Your task to perform on an android device: Clear the cart on walmart.com. Search for "acer predator" on walmart.com, select the first entry, add it to the cart, then select checkout. Image 0: 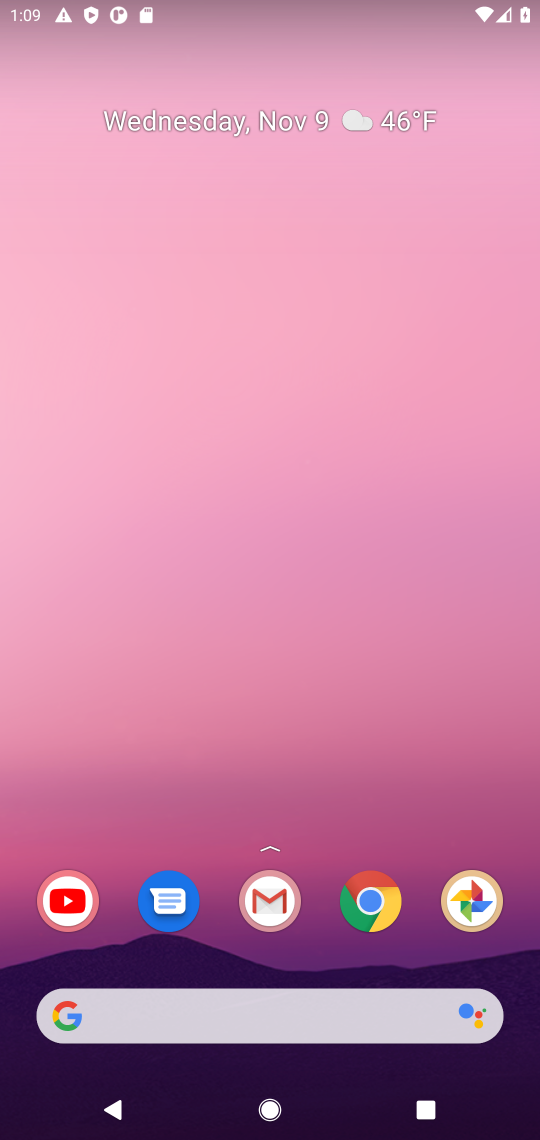
Step 0: click (353, 909)
Your task to perform on an android device: Clear the cart on walmart.com. Search for "acer predator" on walmart.com, select the first entry, add it to the cart, then select checkout. Image 1: 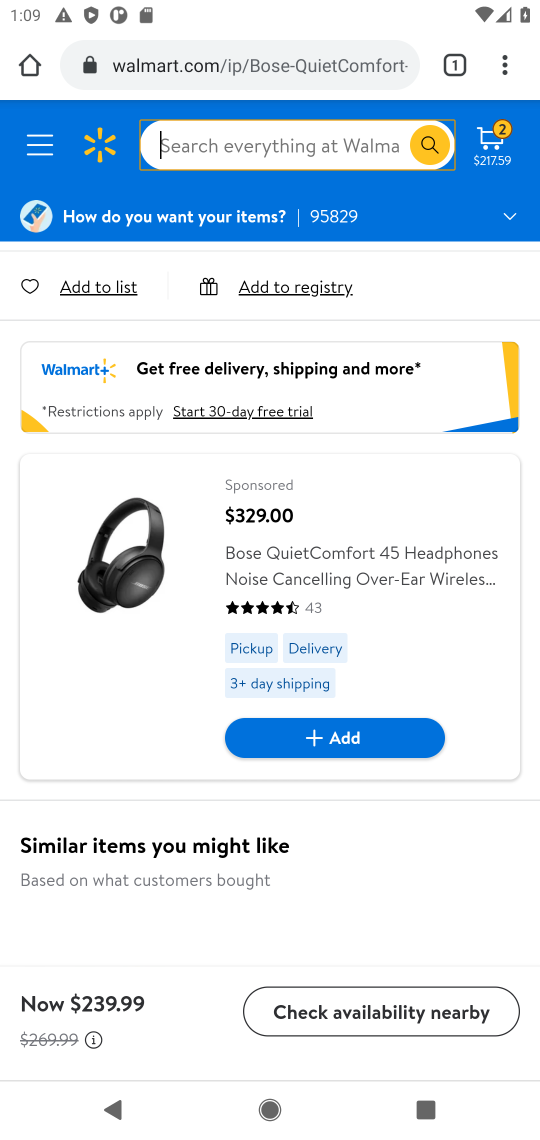
Step 1: click (483, 141)
Your task to perform on an android device: Clear the cart on walmart.com. Search for "acer predator" on walmart.com, select the first entry, add it to the cart, then select checkout. Image 2: 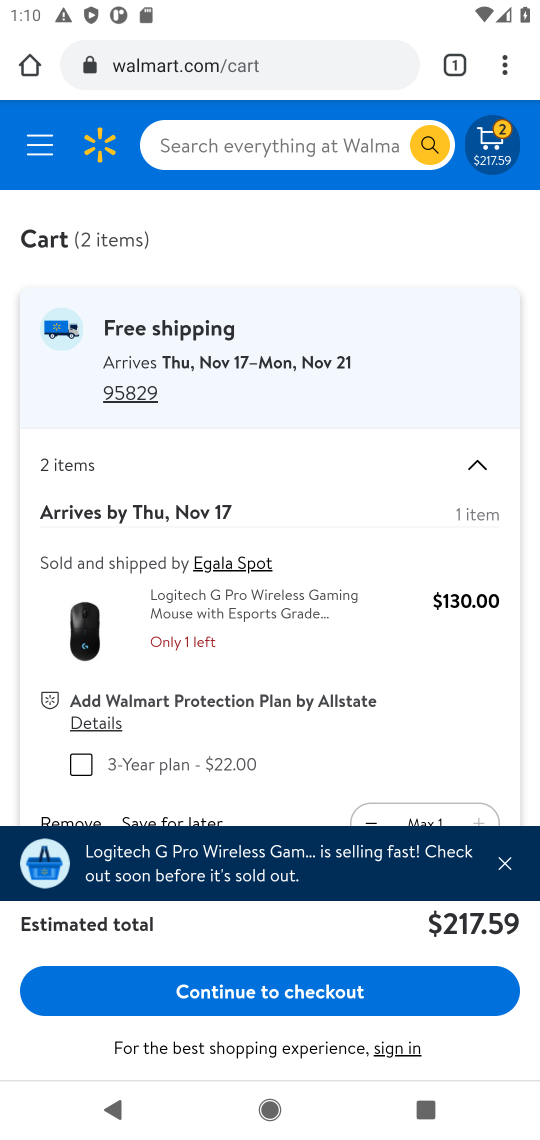
Step 2: drag from (408, 718) to (397, 344)
Your task to perform on an android device: Clear the cart on walmart.com. Search for "acer predator" on walmart.com, select the first entry, add it to the cart, then select checkout. Image 3: 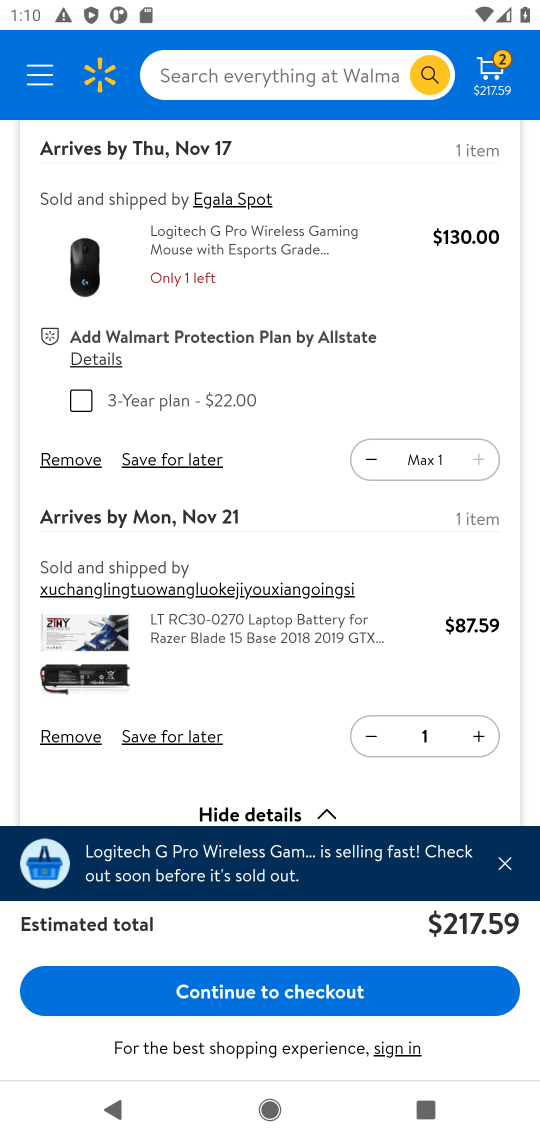
Step 3: click (64, 462)
Your task to perform on an android device: Clear the cart on walmart.com. Search for "acer predator" on walmart.com, select the first entry, add it to the cart, then select checkout. Image 4: 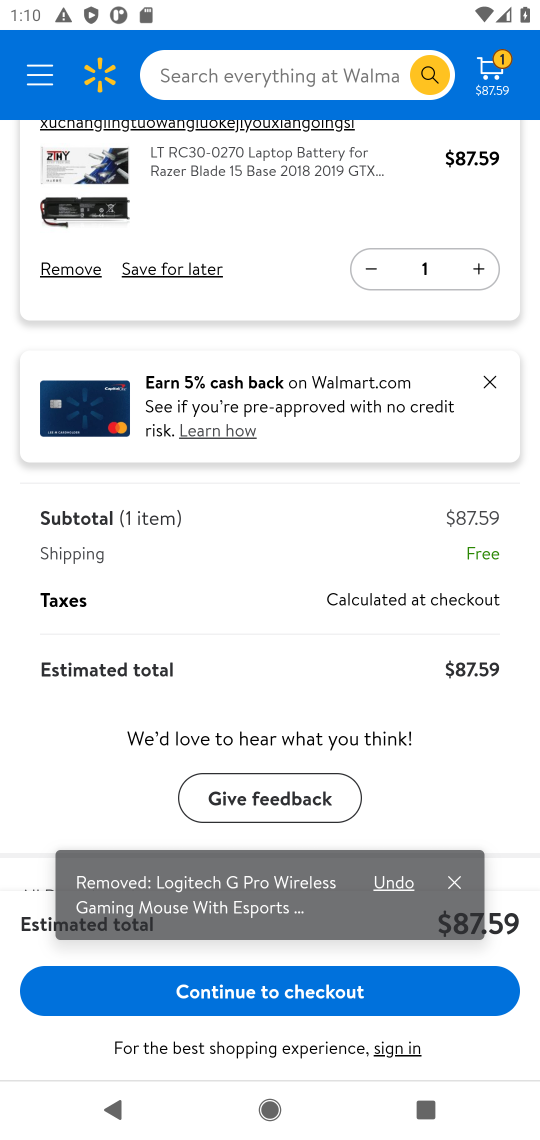
Step 4: click (52, 263)
Your task to perform on an android device: Clear the cart on walmart.com. Search for "acer predator" on walmart.com, select the first entry, add it to the cart, then select checkout. Image 5: 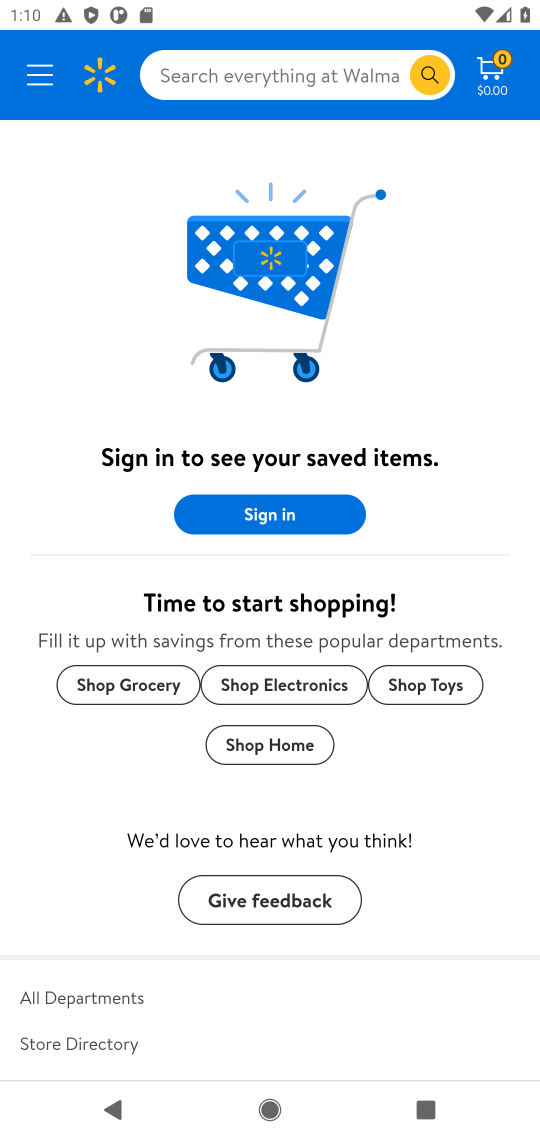
Step 5: click (339, 81)
Your task to perform on an android device: Clear the cart on walmart.com. Search for "acer predator" on walmart.com, select the first entry, add it to the cart, then select checkout. Image 6: 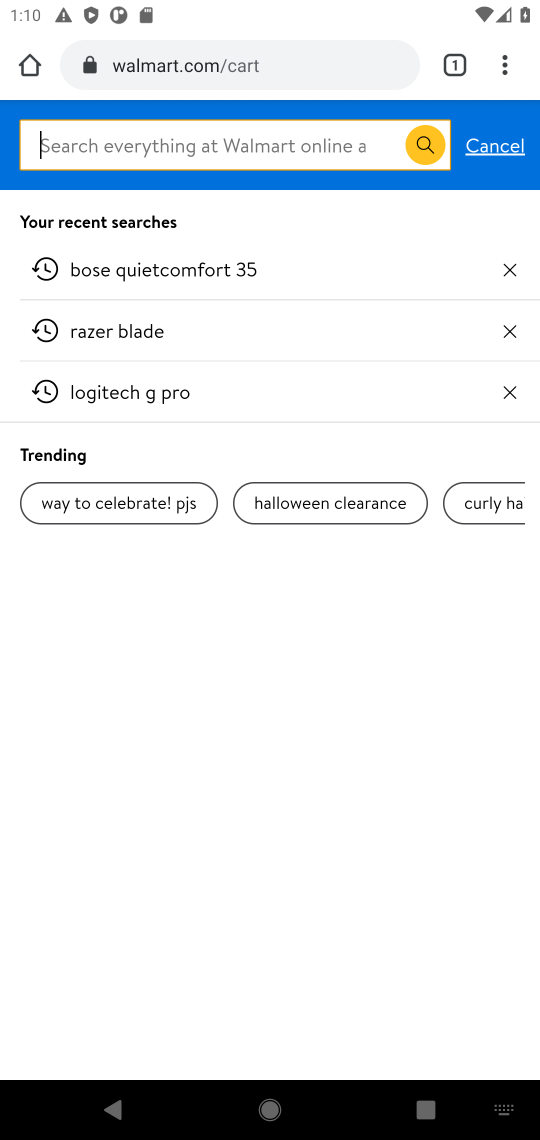
Step 6: click (320, 138)
Your task to perform on an android device: Clear the cart on walmart.com. Search for "acer predator" on walmart.com, select the first entry, add it to the cart, then select checkout. Image 7: 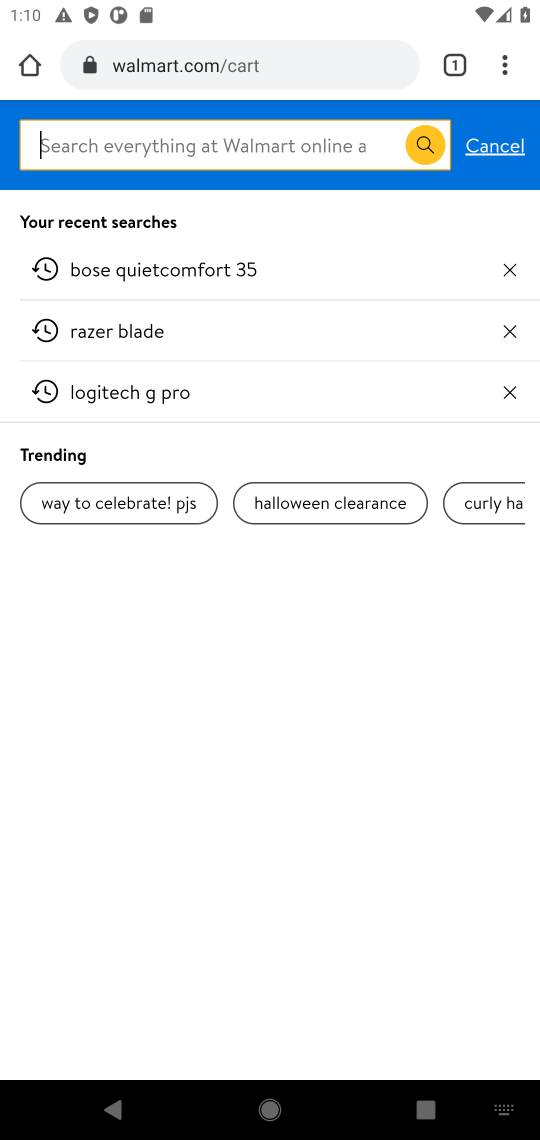
Step 7: type "acer predator"
Your task to perform on an android device: Clear the cart on walmart.com. Search for "acer predator" on walmart.com, select the first entry, add it to the cart, then select checkout. Image 8: 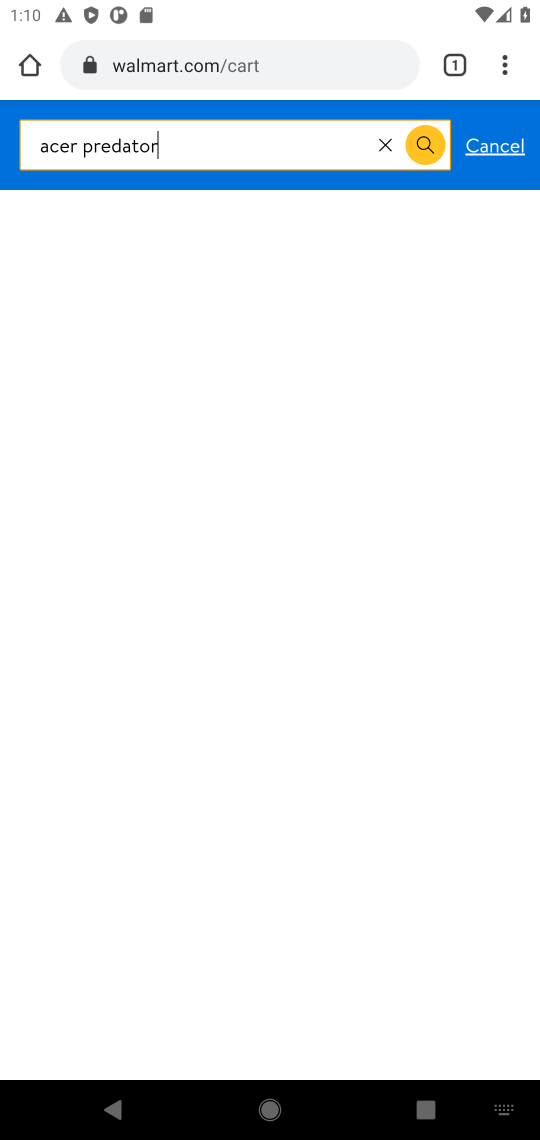
Step 8: press enter
Your task to perform on an android device: Clear the cart on walmart.com. Search for "acer predator" on walmart.com, select the first entry, add it to the cart, then select checkout. Image 9: 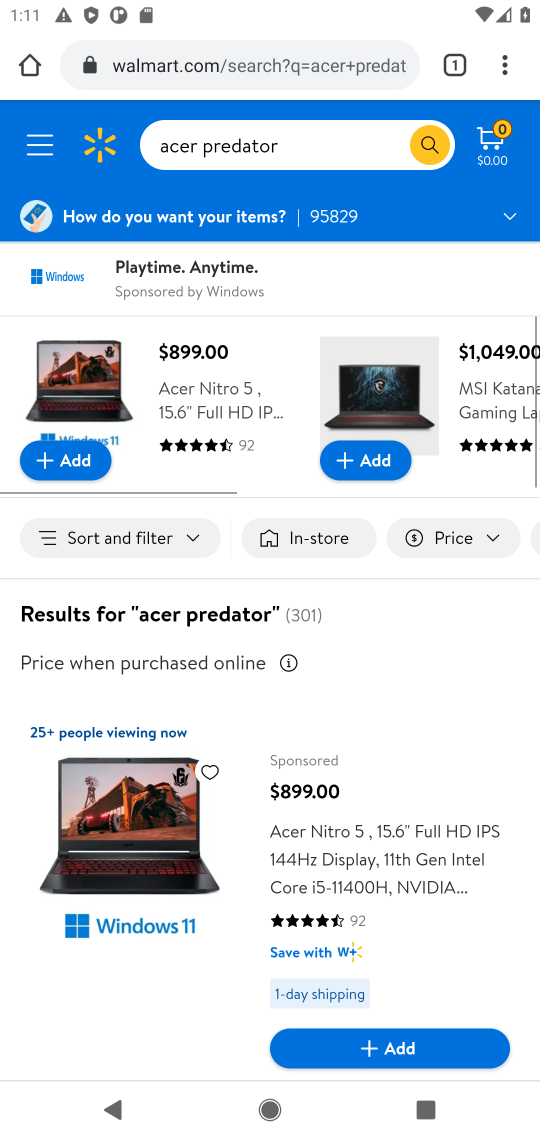
Step 9: drag from (430, 770) to (418, 270)
Your task to perform on an android device: Clear the cart on walmart.com. Search for "acer predator" on walmart.com, select the first entry, add it to the cart, then select checkout. Image 10: 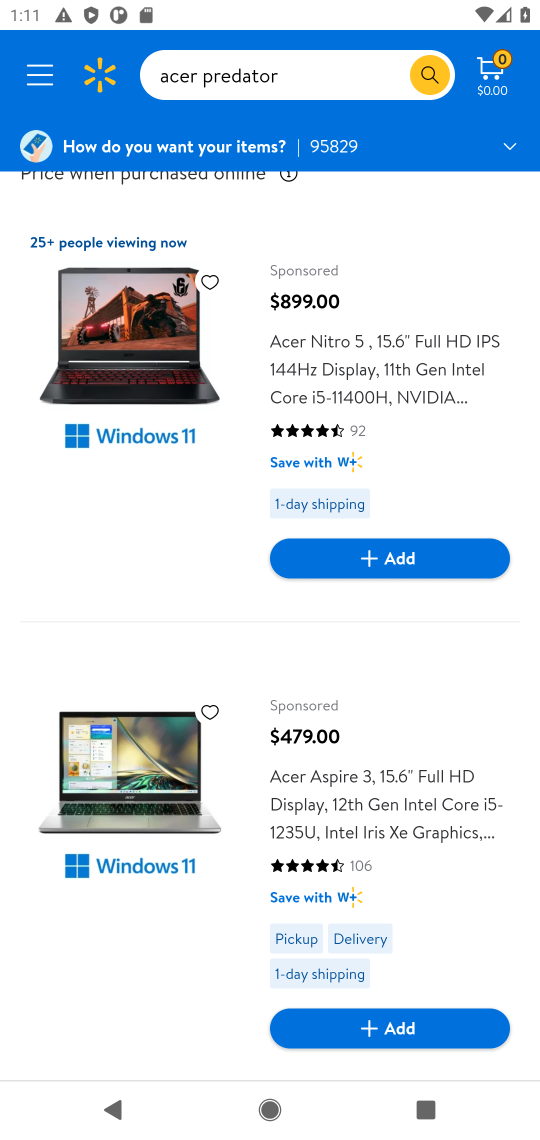
Step 10: drag from (456, 858) to (443, 358)
Your task to perform on an android device: Clear the cart on walmart.com. Search for "acer predator" on walmart.com, select the first entry, add it to the cart, then select checkout. Image 11: 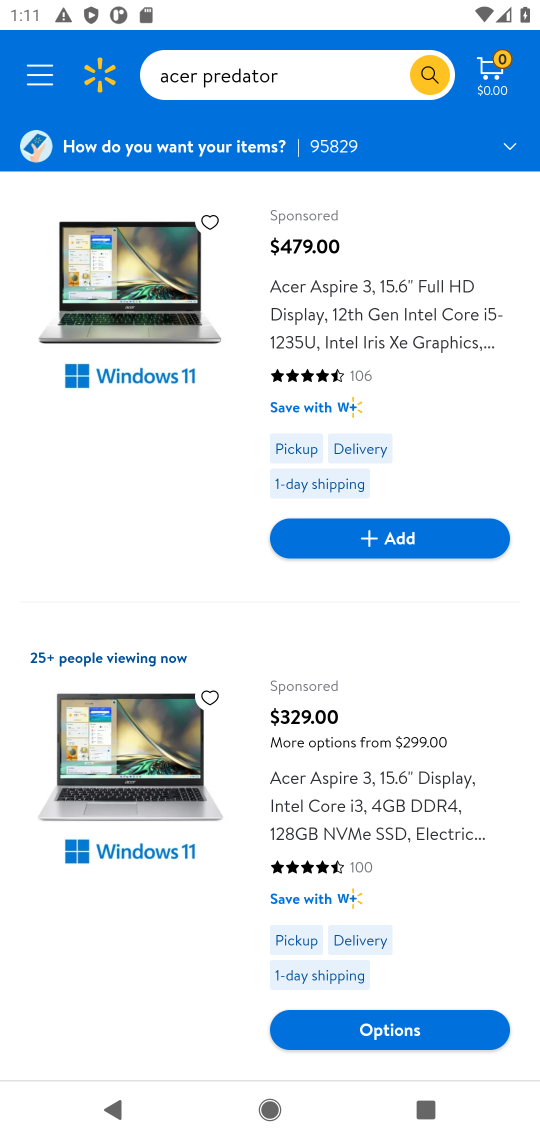
Step 11: drag from (452, 846) to (416, 515)
Your task to perform on an android device: Clear the cart on walmart.com. Search for "acer predator" on walmart.com, select the first entry, add it to the cart, then select checkout. Image 12: 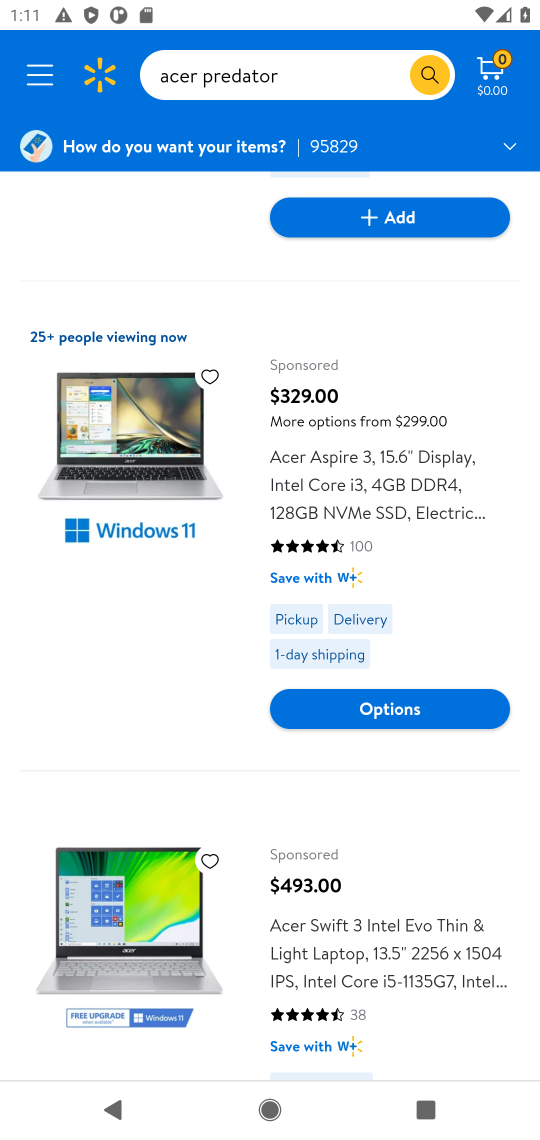
Step 12: drag from (453, 827) to (430, 434)
Your task to perform on an android device: Clear the cart on walmart.com. Search for "acer predator" on walmart.com, select the first entry, add it to the cart, then select checkout. Image 13: 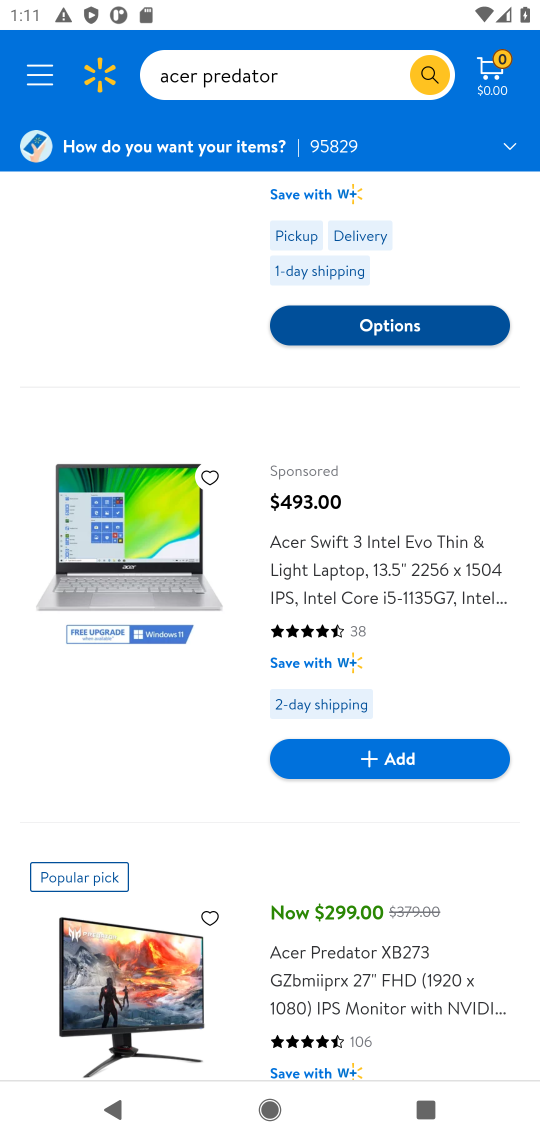
Step 13: click (141, 985)
Your task to perform on an android device: Clear the cart on walmart.com. Search for "acer predator" on walmart.com, select the first entry, add it to the cart, then select checkout. Image 14: 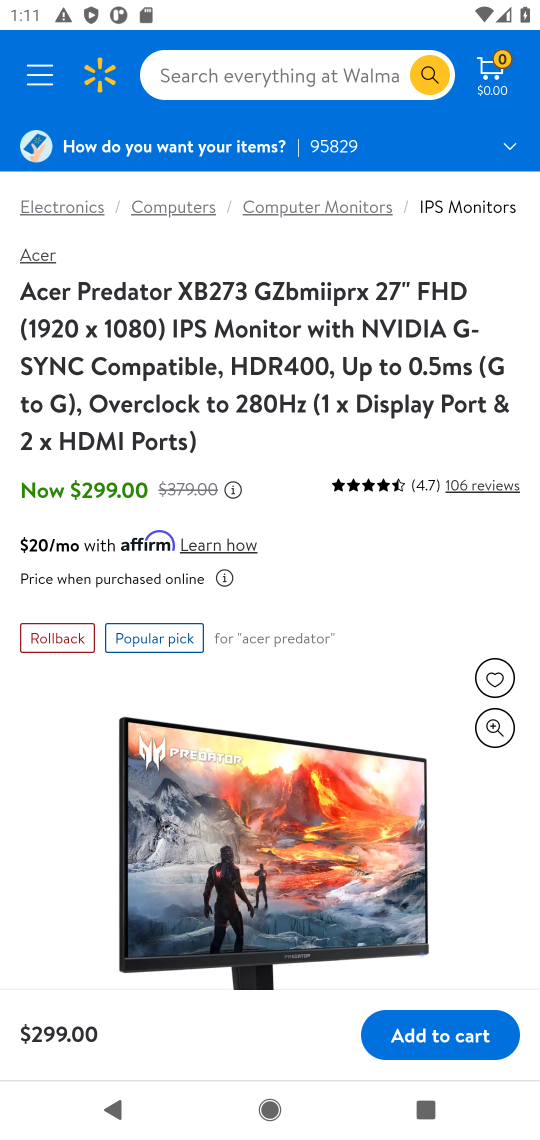
Step 14: click (462, 1048)
Your task to perform on an android device: Clear the cart on walmart.com. Search for "acer predator" on walmart.com, select the first entry, add it to the cart, then select checkout. Image 15: 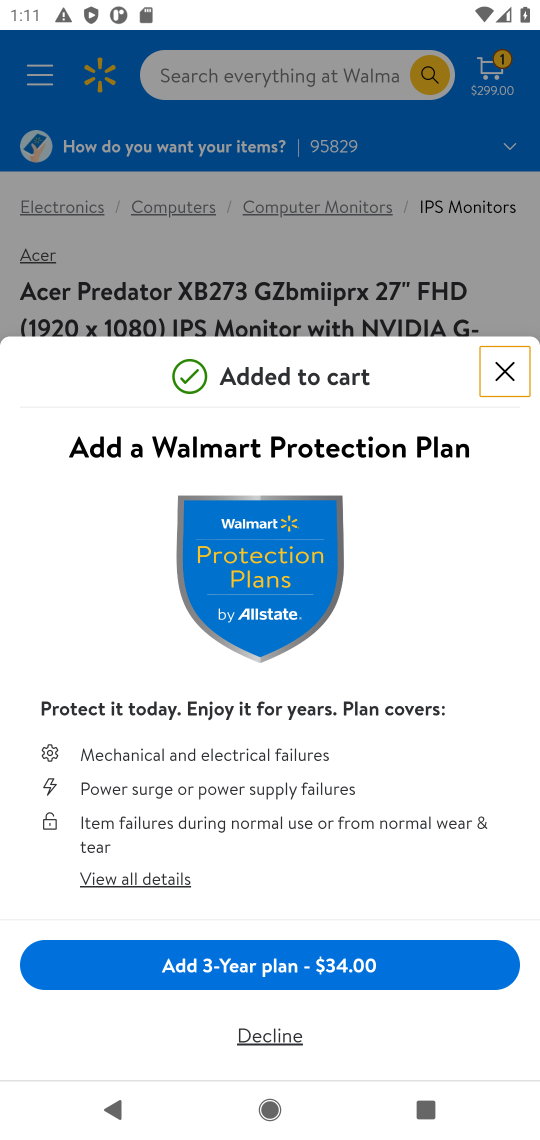
Step 15: click (509, 387)
Your task to perform on an android device: Clear the cart on walmart.com. Search for "acer predator" on walmart.com, select the first entry, add it to the cart, then select checkout. Image 16: 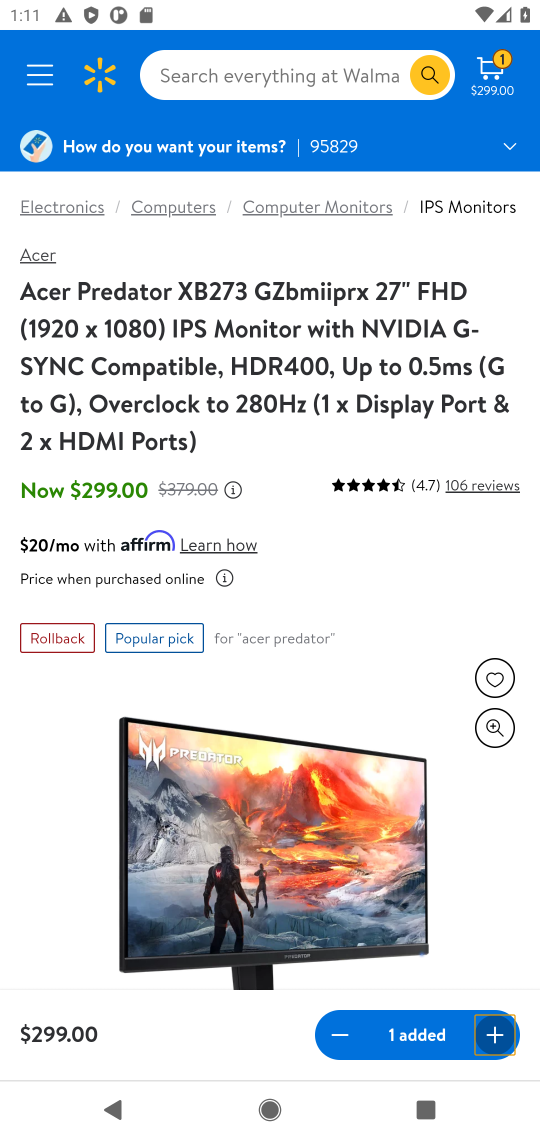
Step 16: click (493, 74)
Your task to perform on an android device: Clear the cart on walmart.com. Search for "acer predator" on walmart.com, select the first entry, add it to the cart, then select checkout. Image 17: 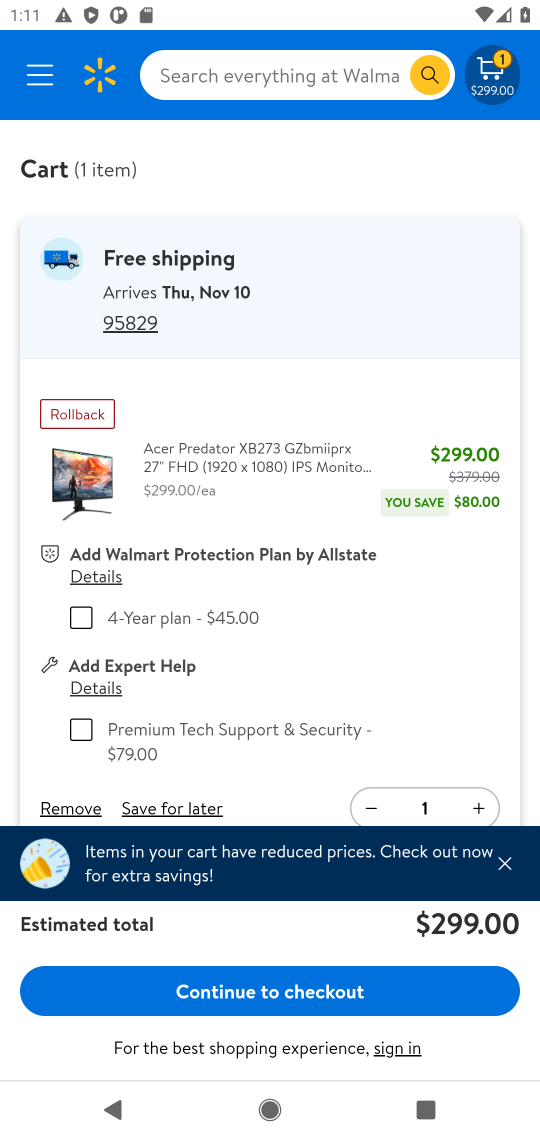
Step 17: click (332, 979)
Your task to perform on an android device: Clear the cart on walmart.com. Search for "acer predator" on walmart.com, select the first entry, add it to the cart, then select checkout. Image 18: 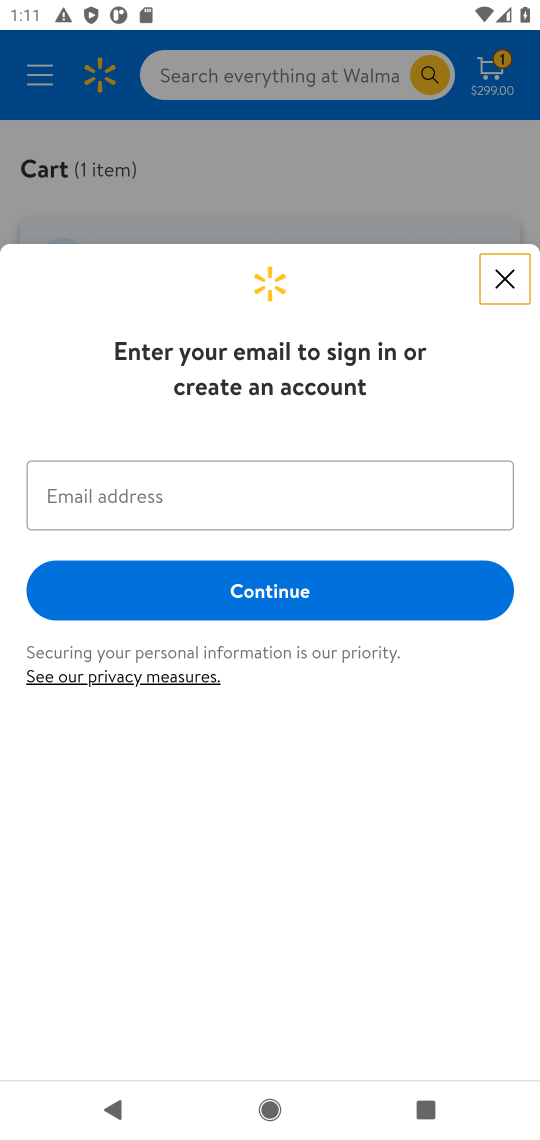
Step 18: task complete